Your task to perform on an android device: Go to eBay Image 0: 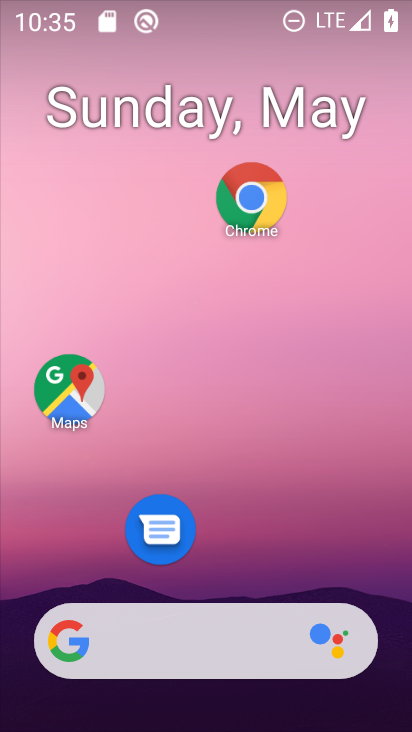
Step 0: click (249, 183)
Your task to perform on an android device: Go to eBay Image 1: 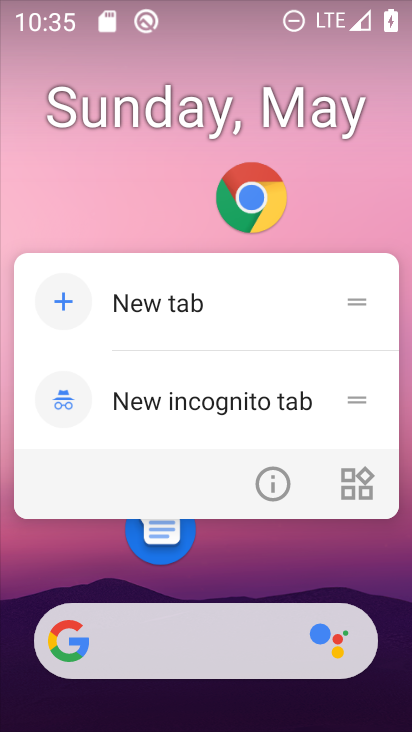
Step 1: click (249, 182)
Your task to perform on an android device: Go to eBay Image 2: 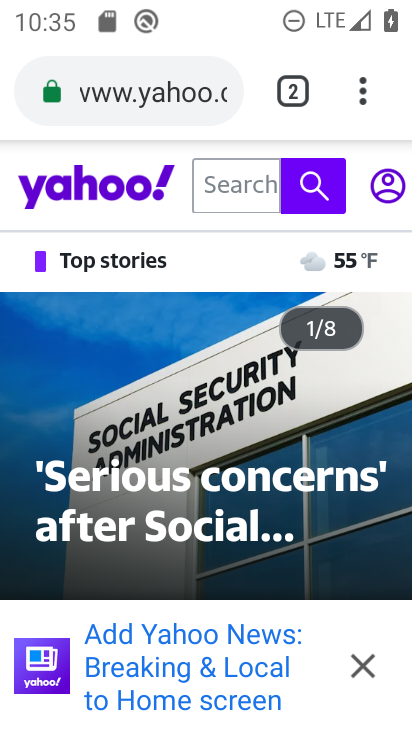
Step 2: click (168, 97)
Your task to perform on an android device: Go to eBay Image 3: 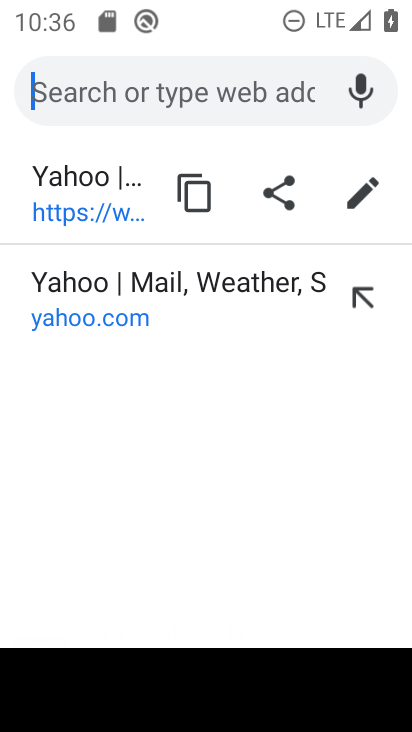
Step 3: type "ebay"
Your task to perform on an android device: Go to eBay Image 4: 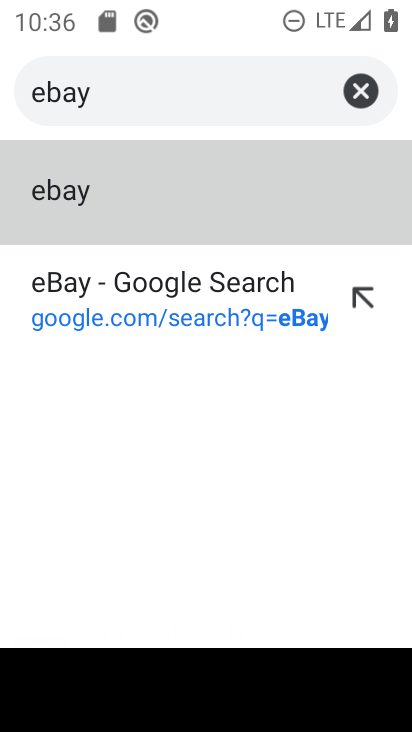
Step 4: click (51, 202)
Your task to perform on an android device: Go to eBay Image 5: 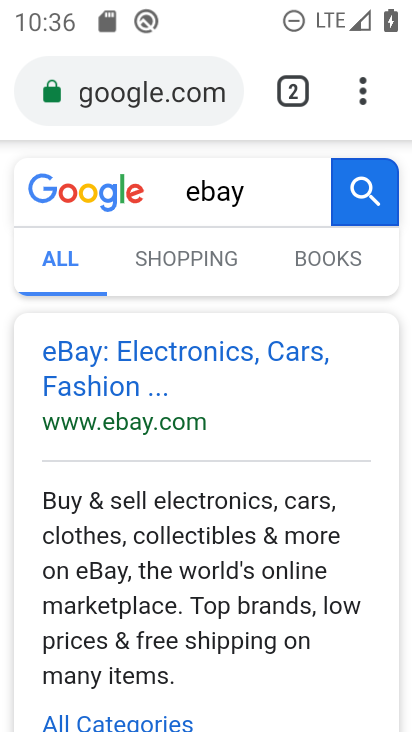
Step 5: click (91, 340)
Your task to perform on an android device: Go to eBay Image 6: 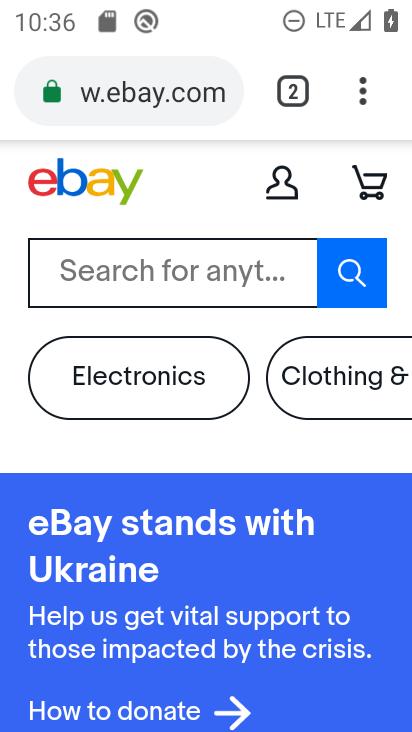
Step 6: task complete